Your task to perform on an android device: Show me the alarms in the clock app Image 0: 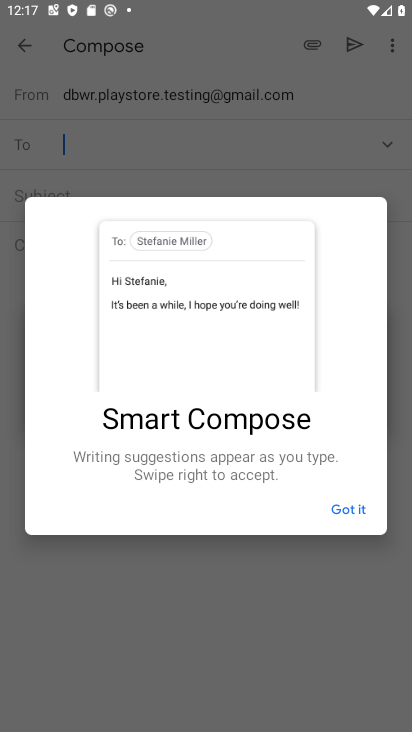
Step 0: press home button
Your task to perform on an android device: Show me the alarms in the clock app Image 1: 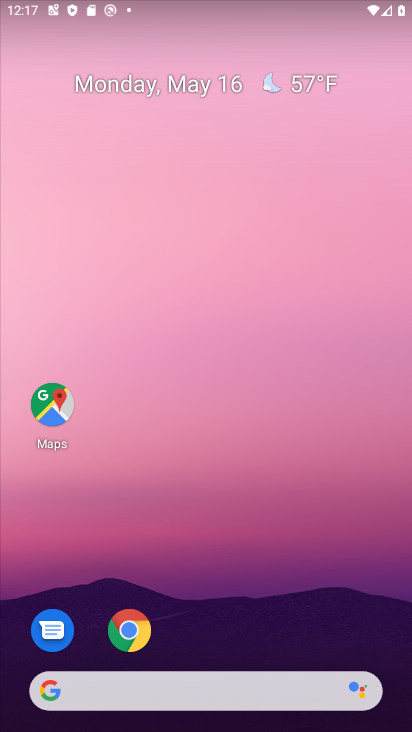
Step 1: drag from (238, 674) to (238, 282)
Your task to perform on an android device: Show me the alarms in the clock app Image 2: 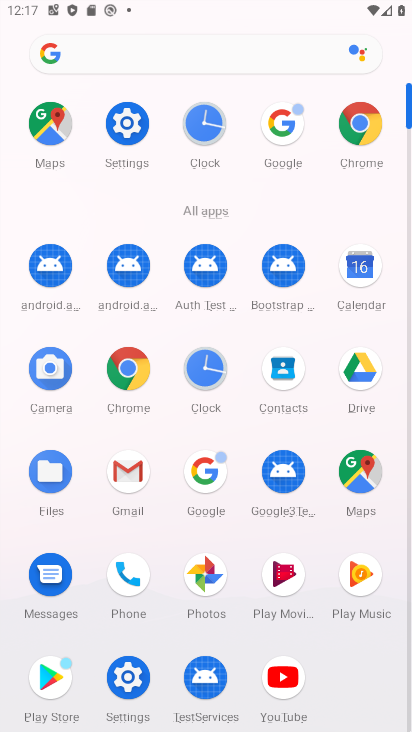
Step 2: click (207, 118)
Your task to perform on an android device: Show me the alarms in the clock app Image 3: 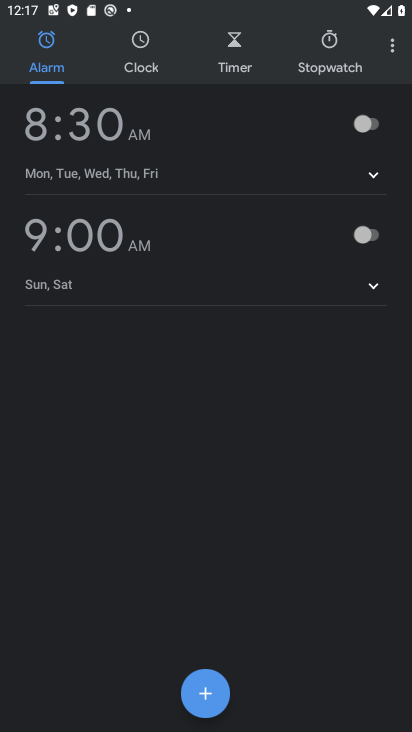
Step 3: task complete